Your task to perform on an android device: Open Maps and search for coffee Image 0: 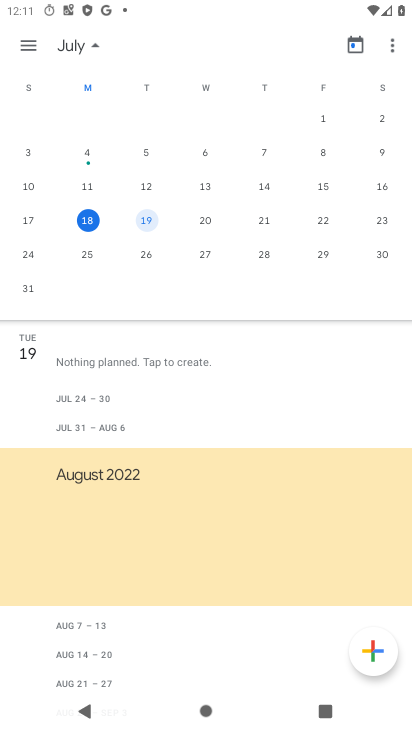
Step 0: press home button
Your task to perform on an android device: Open Maps and search for coffee Image 1: 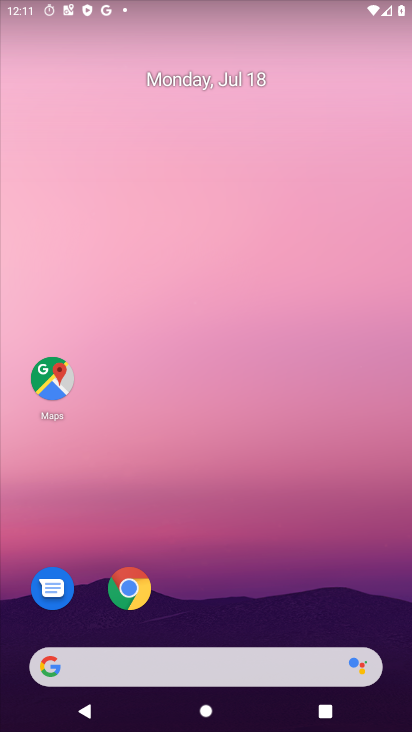
Step 1: click (56, 386)
Your task to perform on an android device: Open Maps and search for coffee Image 2: 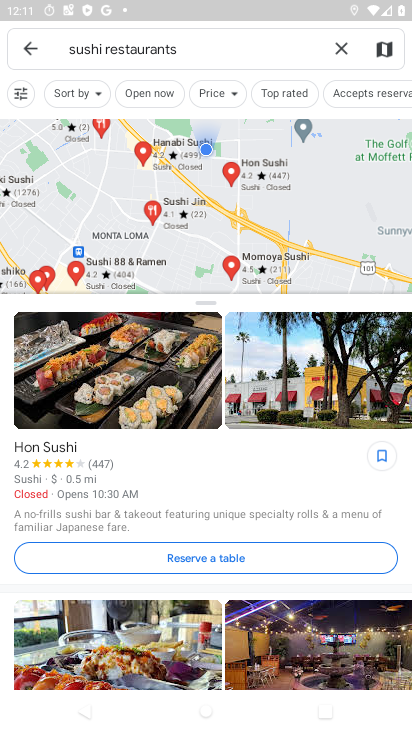
Step 2: click (348, 46)
Your task to perform on an android device: Open Maps and search for coffee Image 3: 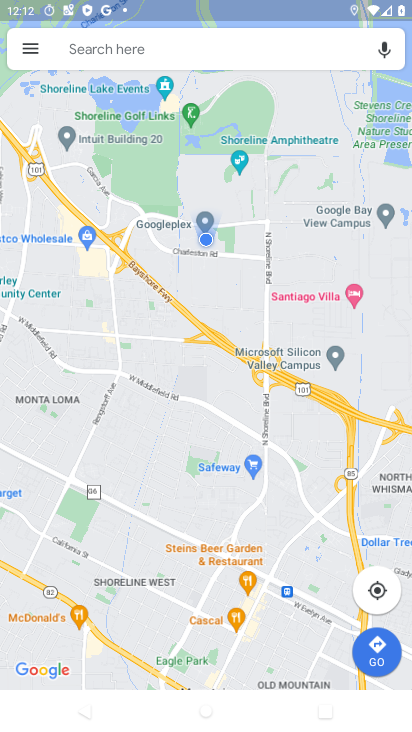
Step 3: click (120, 55)
Your task to perform on an android device: Open Maps and search for coffee Image 4: 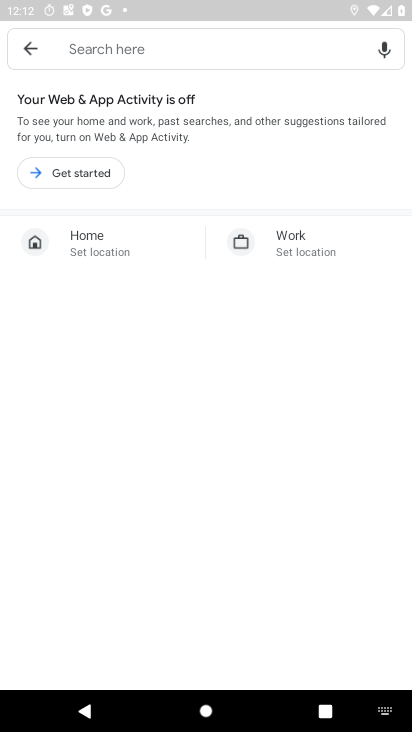
Step 4: type "coffee"
Your task to perform on an android device: Open Maps and search for coffee Image 5: 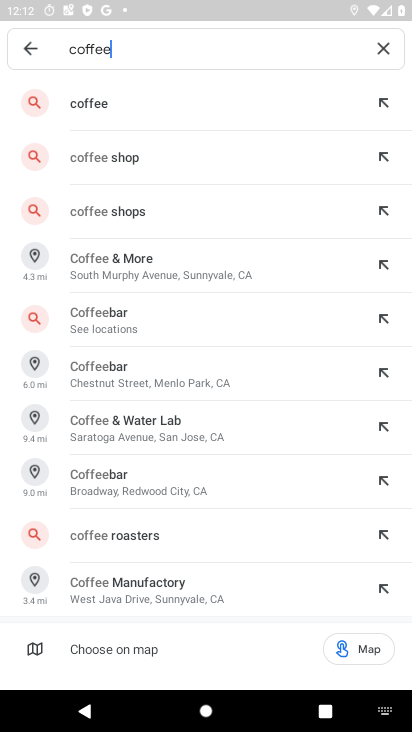
Step 5: click (160, 96)
Your task to perform on an android device: Open Maps and search for coffee Image 6: 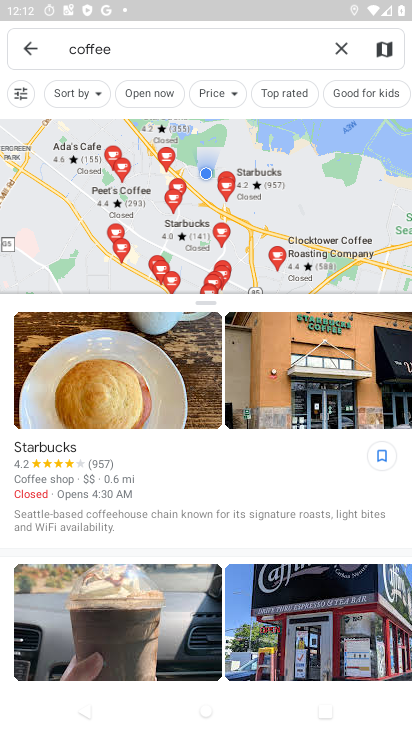
Step 6: task complete